Your task to perform on an android device: turn off translation in the chrome app Image 0: 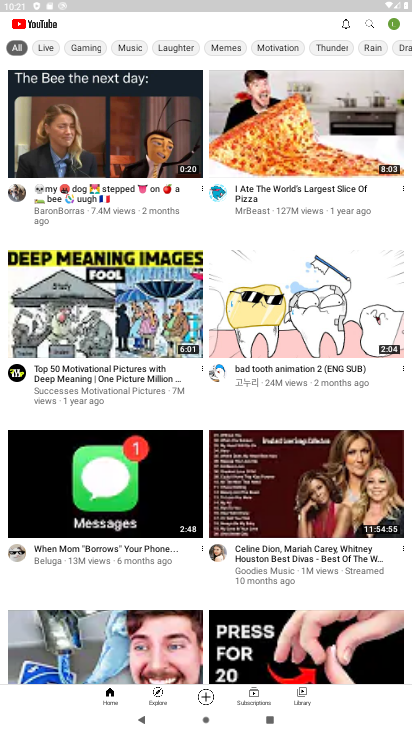
Step 0: press home button
Your task to perform on an android device: turn off translation in the chrome app Image 1: 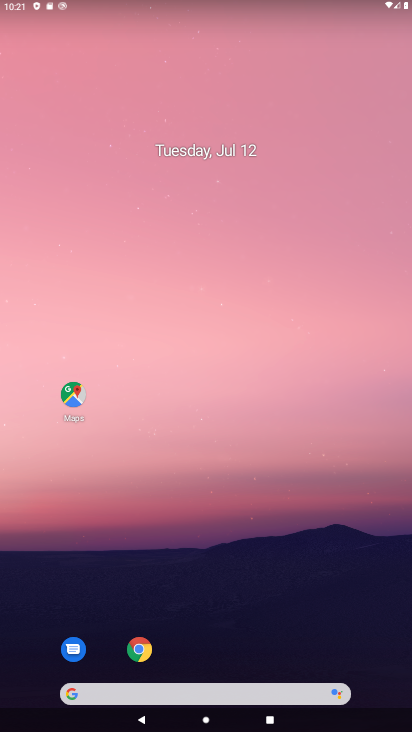
Step 1: click (139, 651)
Your task to perform on an android device: turn off translation in the chrome app Image 2: 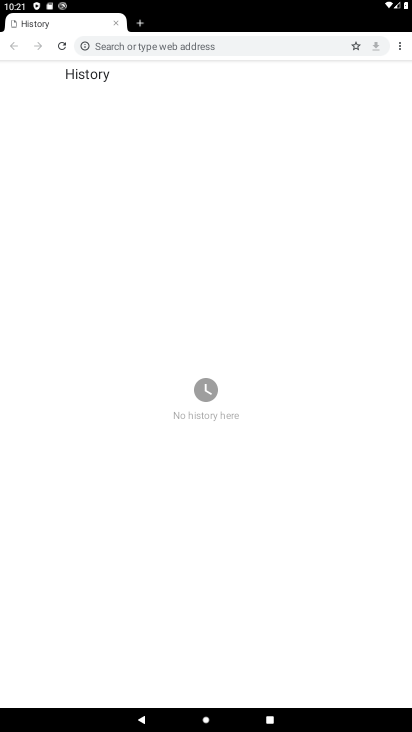
Step 2: click (398, 50)
Your task to perform on an android device: turn off translation in the chrome app Image 3: 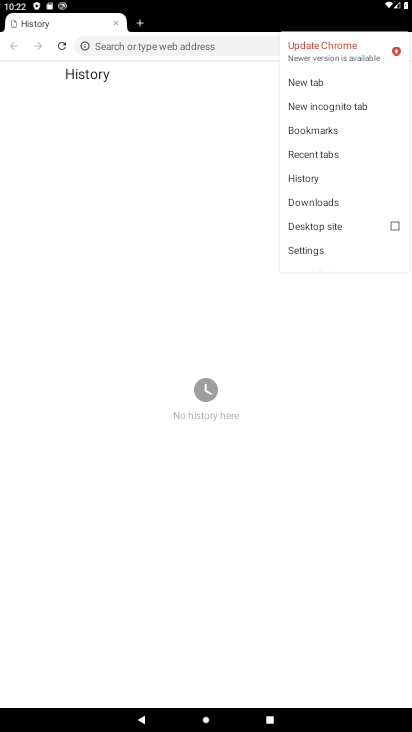
Step 3: click (309, 251)
Your task to perform on an android device: turn off translation in the chrome app Image 4: 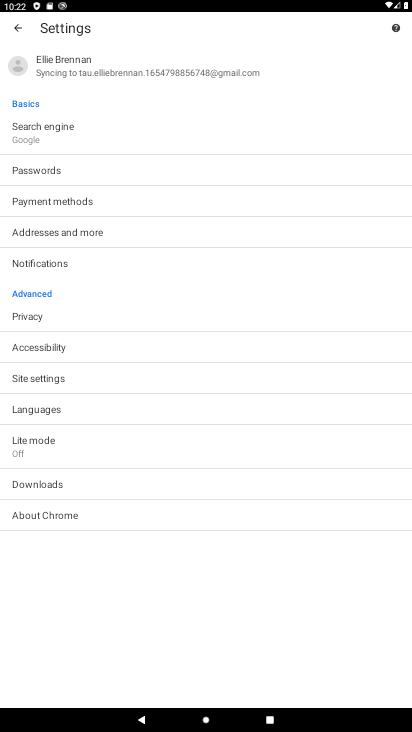
Step 4: click (45, 413)
Your task to perform on an android device: turn off translation in the chrome app Image 5: 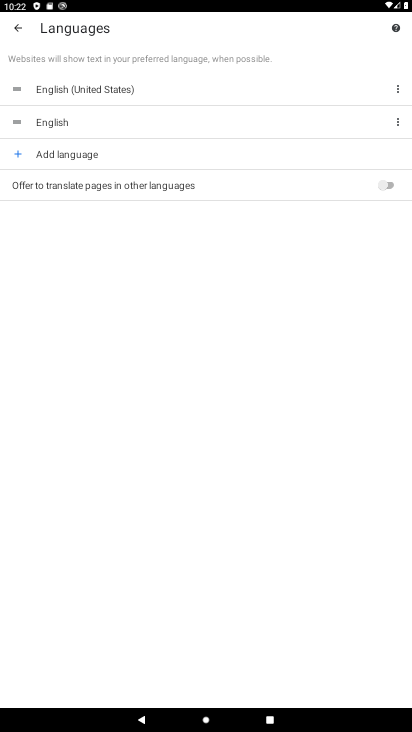
Step 5: task complete